Your task to perform on an android device: Open Youtube and go to the subscriptions tab Image 0: 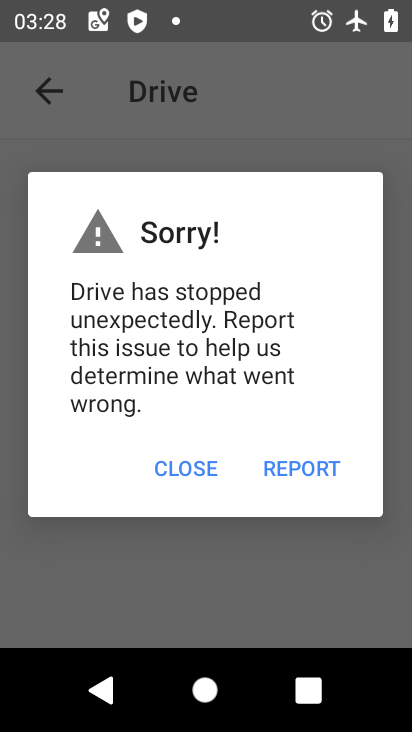
Step 0: press home button
Your task to perform on an android device: Open Youtube and go to the subscriptions tab Image 1: 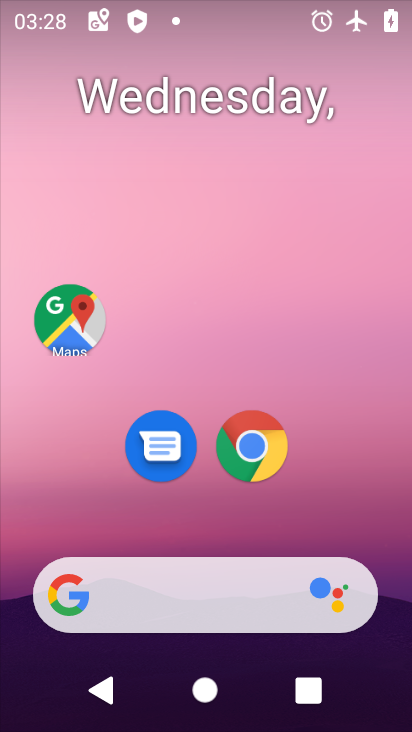
Step 1: drag from (204, 531) to (235, 206)
Your task to perform on an android device: Open Youtube and go to the subscriptions tab Image 2: 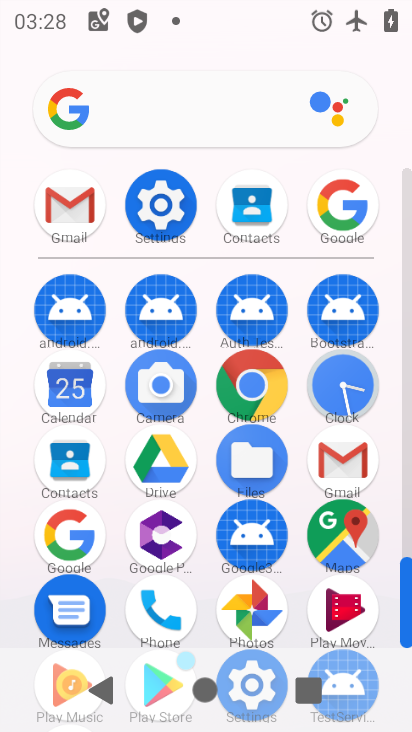
Step 2: drag from (235, 597) to (251, 270)
Your task to perform on an android device: Open Youtube and go to the subscriptions tab Image 3: 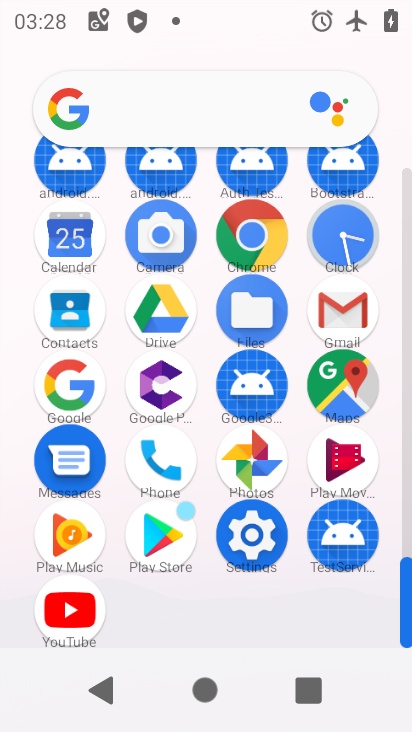
Step 3: click (83, 605)
Your task to perform on an android device: Open Youtube and go to the subscriptions tab Image 4: 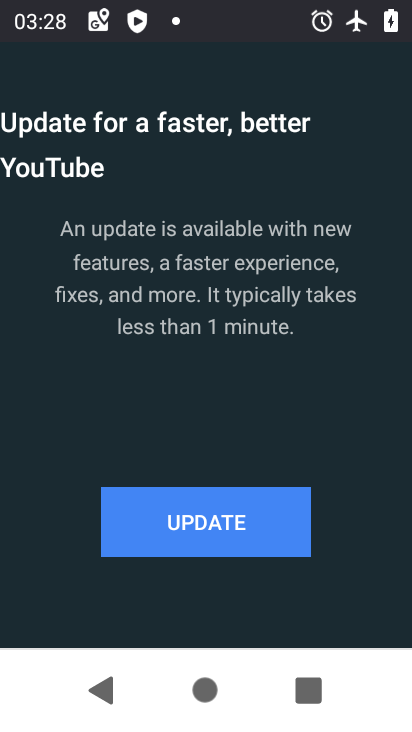
Step 4: click (253, 518)
Your task to perform on an android device: Open Youtube and go to the subscriptions tab Image 5: 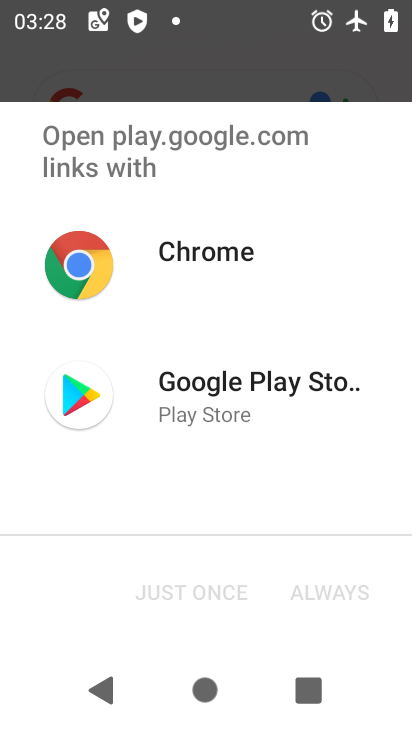
Step 5: click (246, 383)
Your task to perform on an android device: Open Youtube and go to the subscriptions tab Image 6: 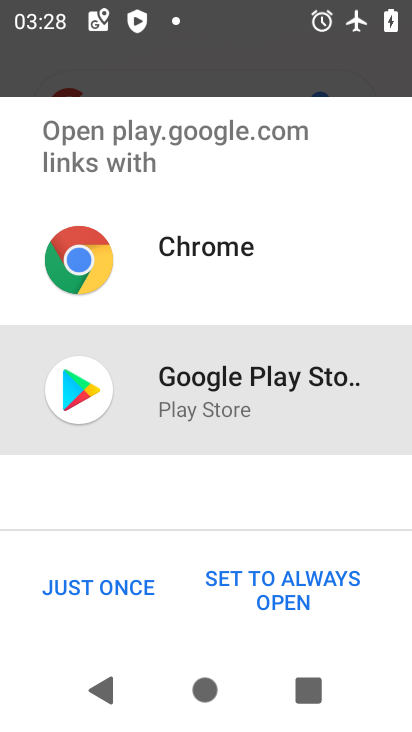
Step 6: click (50, 596)
Your task to perform on an android device: Open Youtube and go to the subscriptions tab Image 7: 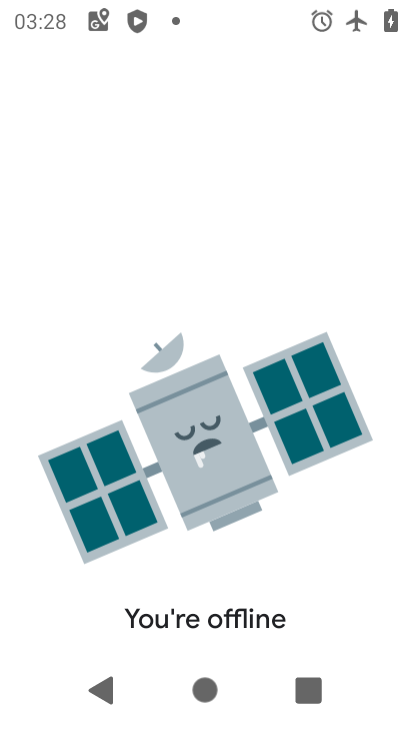
Step 7: task complete